Your task to perform on an android device: change text size in settings app Image 0: 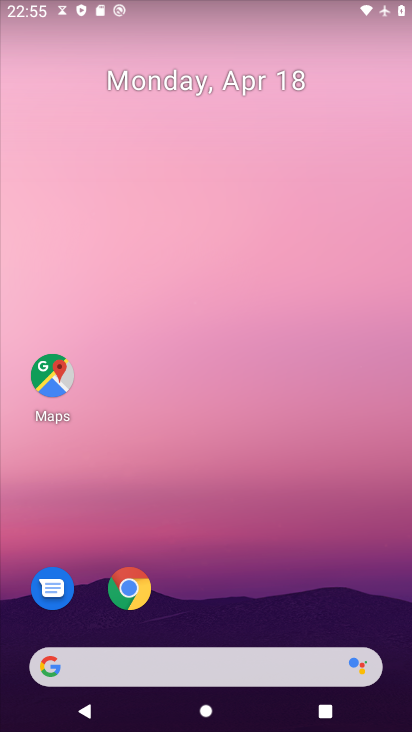
Step 0: drag from (186, 540) to (108, 0)
Your task to perform on an android device: change text size in settings app Image 1: 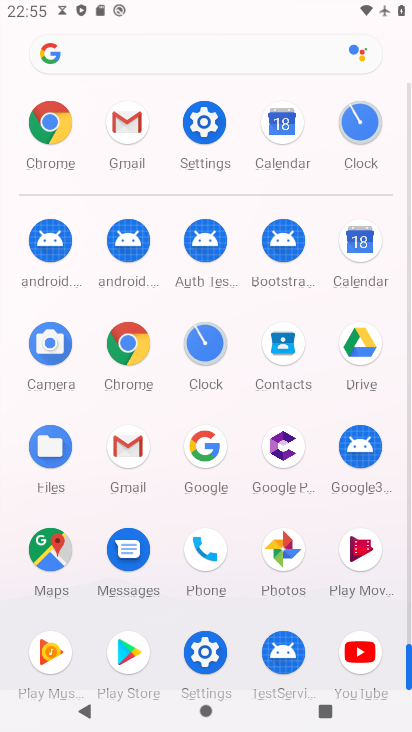
Step 1: click (207, 124)
Your task to perform on an android device: change text size in settings app Image 2: 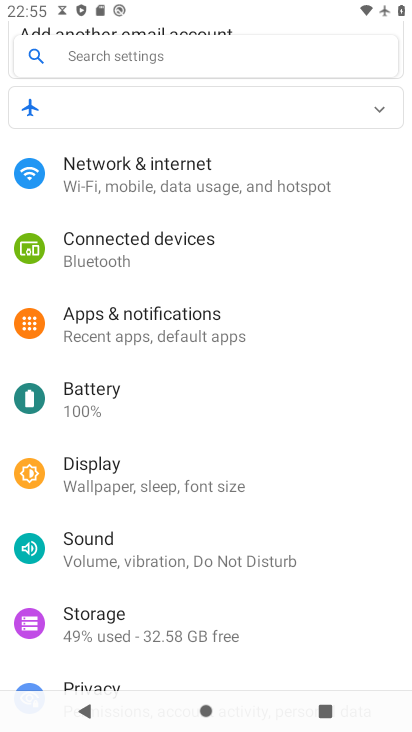
Step 2: drag from (275, 595) to (290, 239)
Your task to perform on an android device: change text size in settings app Image 3: 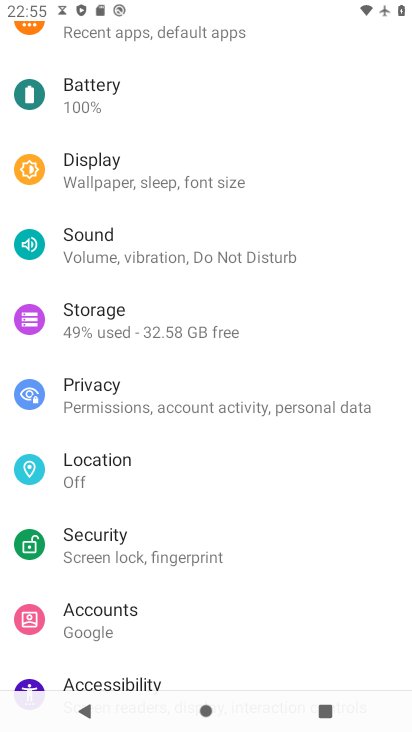
Step 3: click (123, 173)
Your task to perform on an android device: change text size in settings app Image 4: 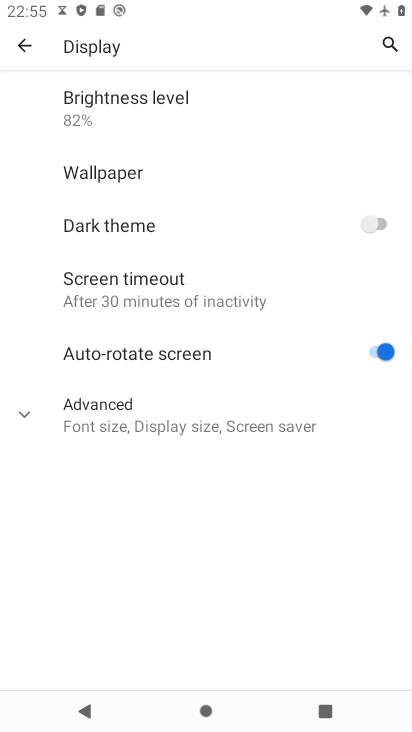
Step 4: click (57, 421)
Your task to perform on an android device: change text size in settings app Image 5: 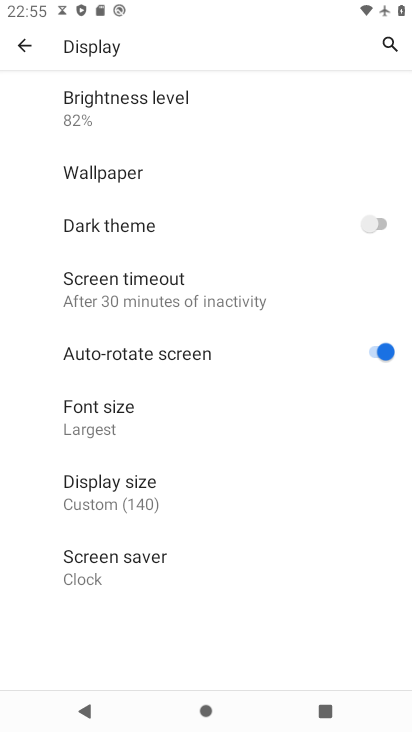
Step 5: click (104, 415)
Your task to perform on an android device: change text size in settings app Image 6: 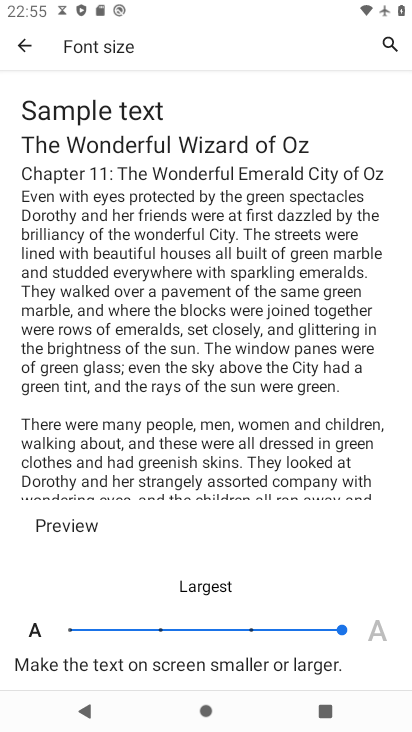
Step 6: drag from (191, 498) to (195, 161)
Your task to perform on an android device: change text size in settings app Image 7: 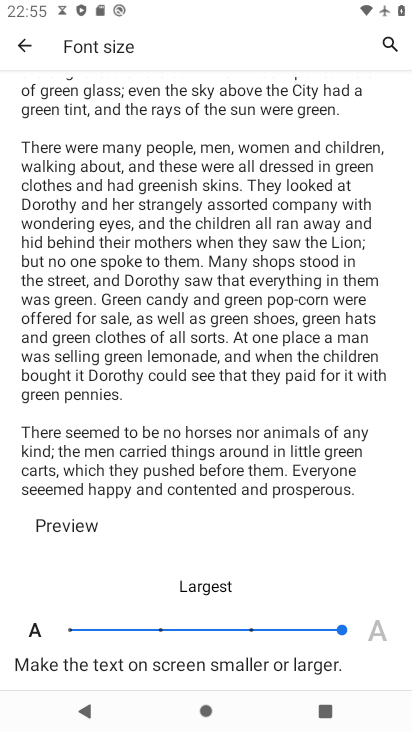
Step 7: drag from (181, 404) to (203, 151)
Your task to perform on an android device: change text size in settings app Image 8: 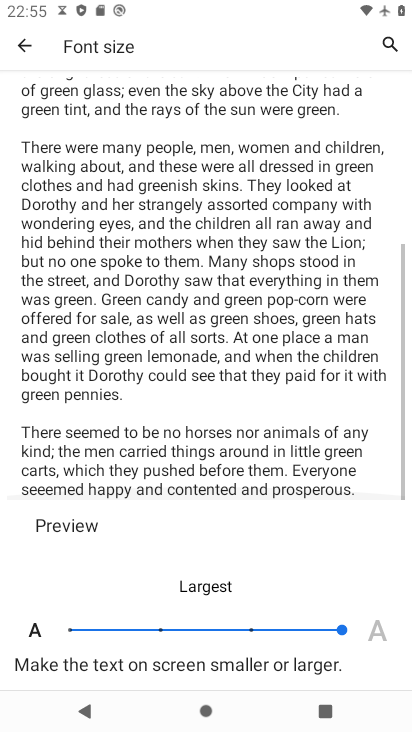
Step 8: drag from (222, 114) to (222, 439)
Your task to perform on an android device: change text size in settings app Image 9: 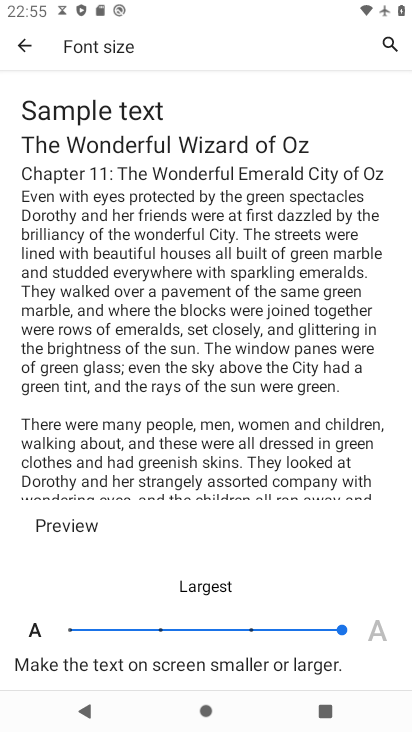
Step 9: drag from (168, 475) to (217, 132)
Your task to perform on an android device: change text size in settings app Image 10: 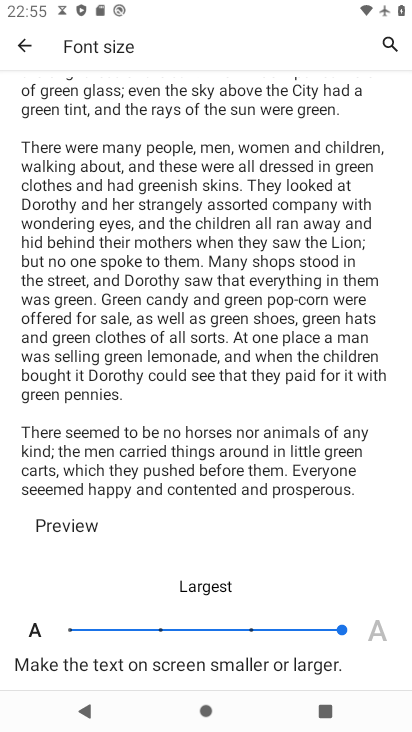
Step 10: drag from (210, 406) to (232, 121)
Your task to perform on an android device: change text size in settings app Image 11: 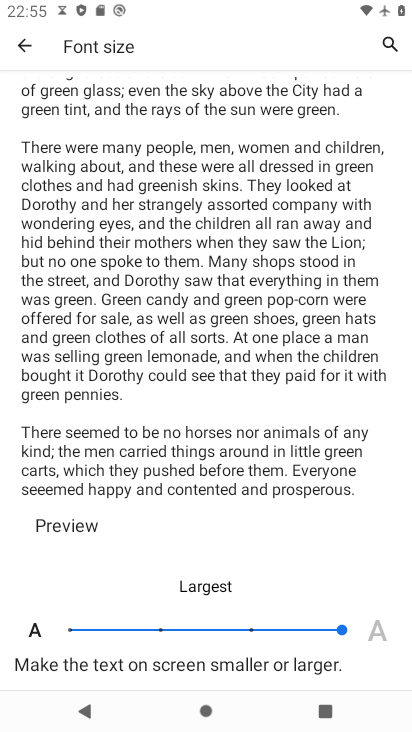
Step 11: click (251, 635)
Your task to perform on an android device: change text size in settings app Image 12: 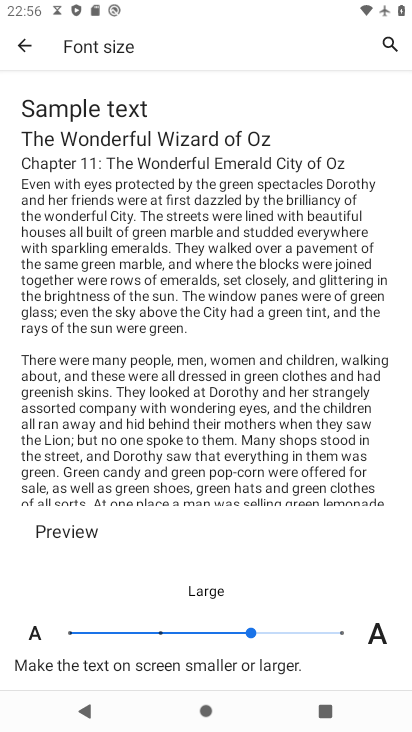
Step 12: task complete